Your task to perform on an android device: Go to Amazon Image 0: 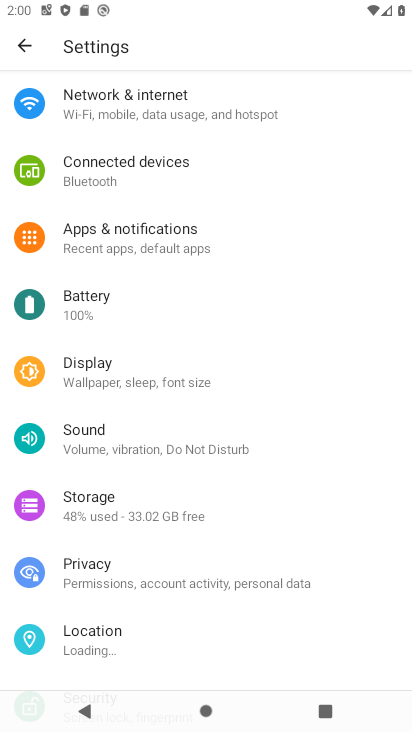
Step 0: click (124, 587)
Your task to perform on an android device: Go to Amazon Image 1: 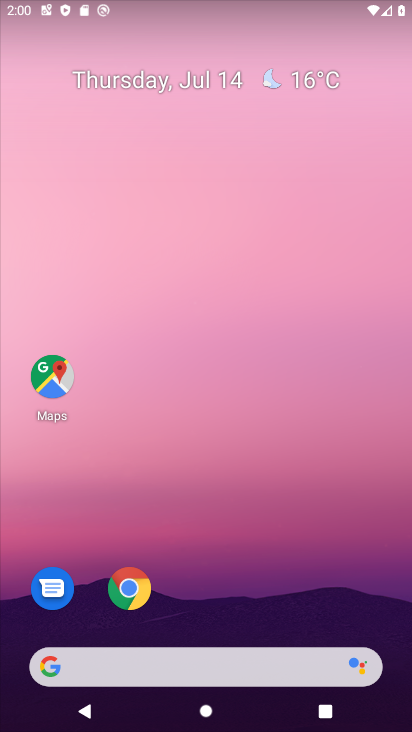
Step 1: task complete